Your task to perform on an android device: remove spam from my inbox in the gmail app Image 0: 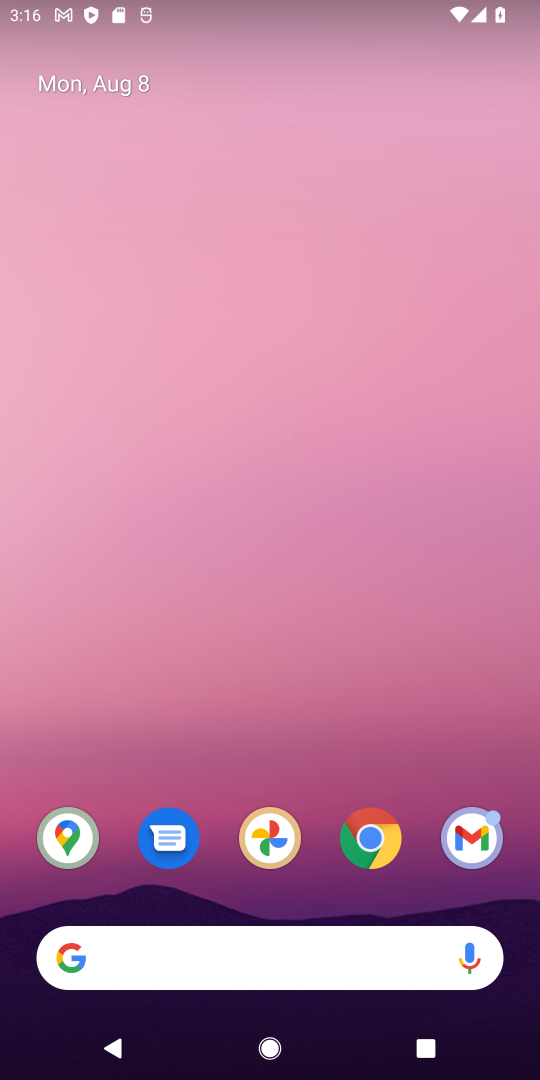
Step 0: drag from (237, 967) to (284, 265)
Your task to perform on an android device: remove spam from my inbox in the gmail app Image 1: 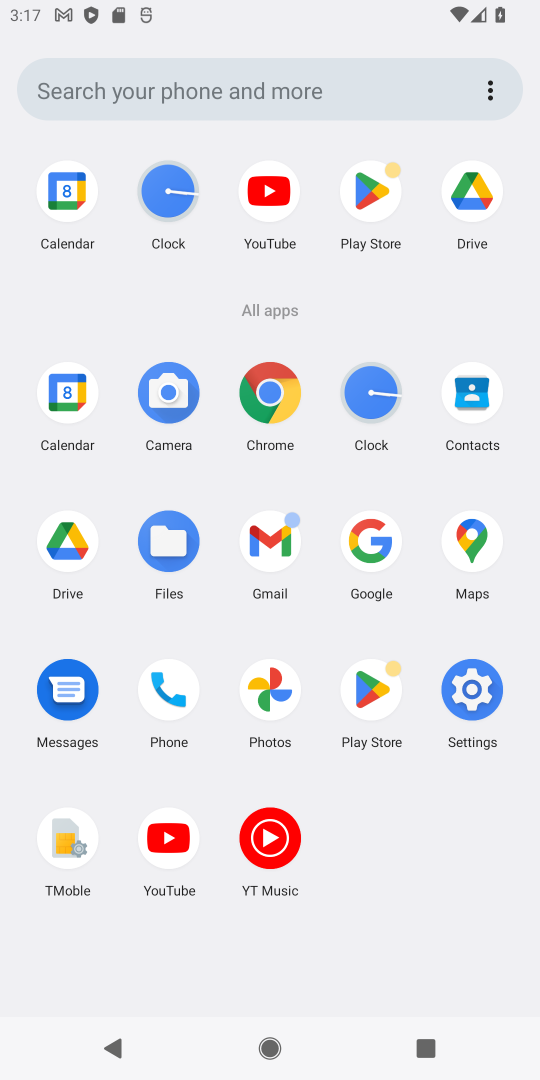
Step 1: click (271, 534)
Your task to perform on an android device: remove spam from my inbox in the gmail app Image 2: 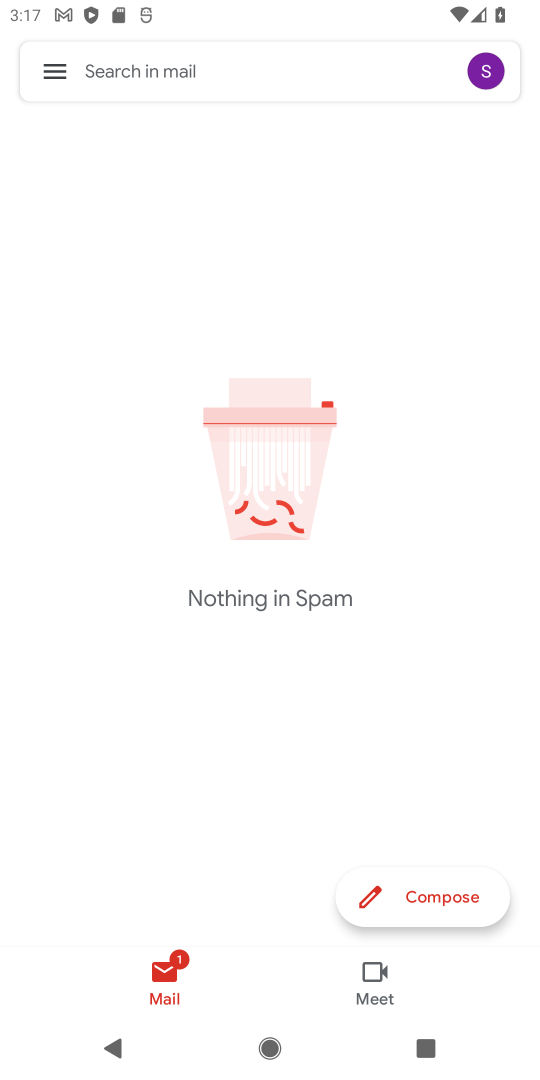
Step 2: click (62, 70)
Your task to perform on an android device: remove spam from my inbox in the gmail app Image 3: 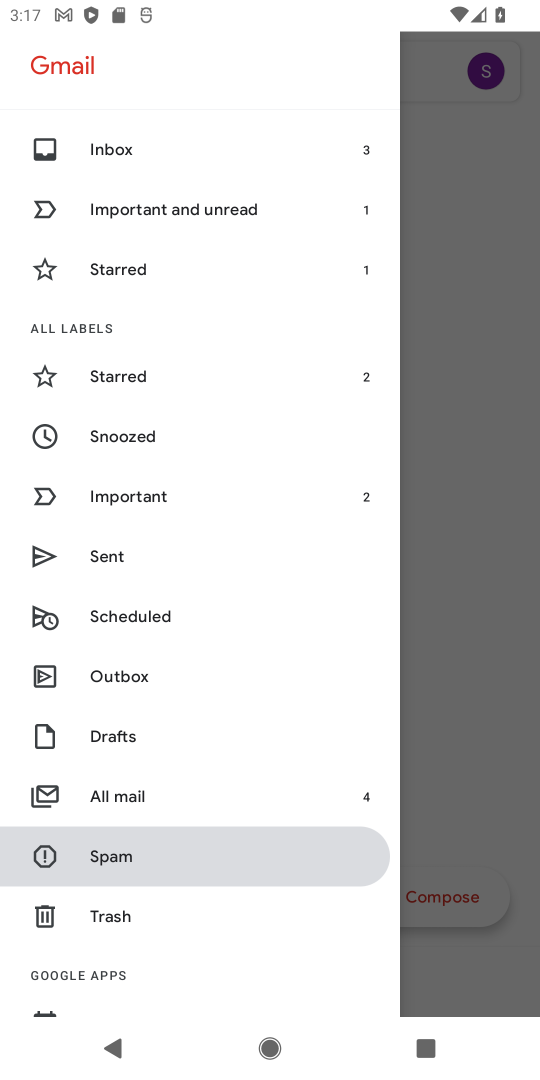
Step 3: click (127, 852)
Your task to perform on an android device: remove spam from my inbox in the gmail app Image 4: 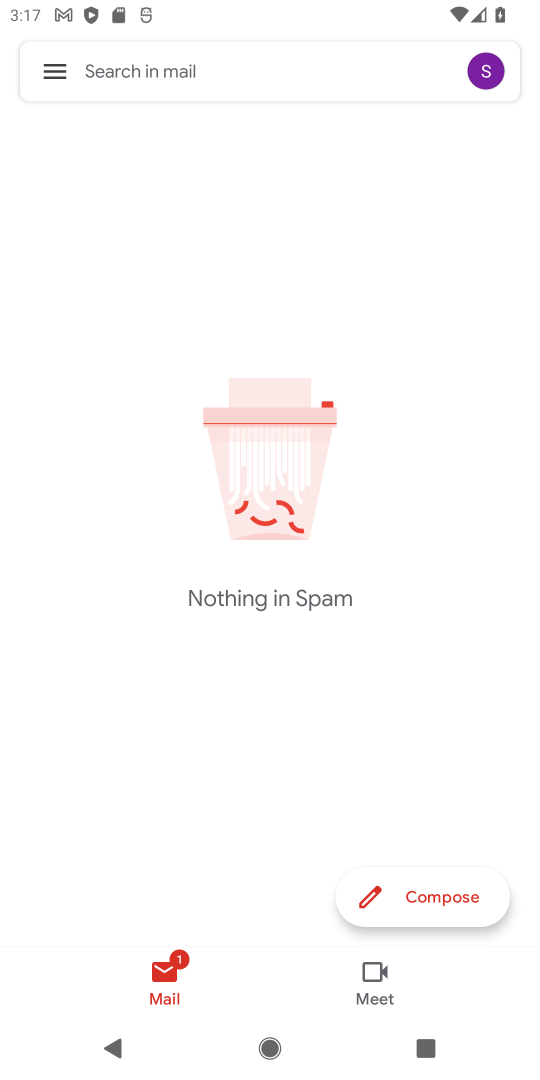
Step 4: task complete